Your task to perform on an android device: Search for vegetarian restaurants on Maps Image 0: 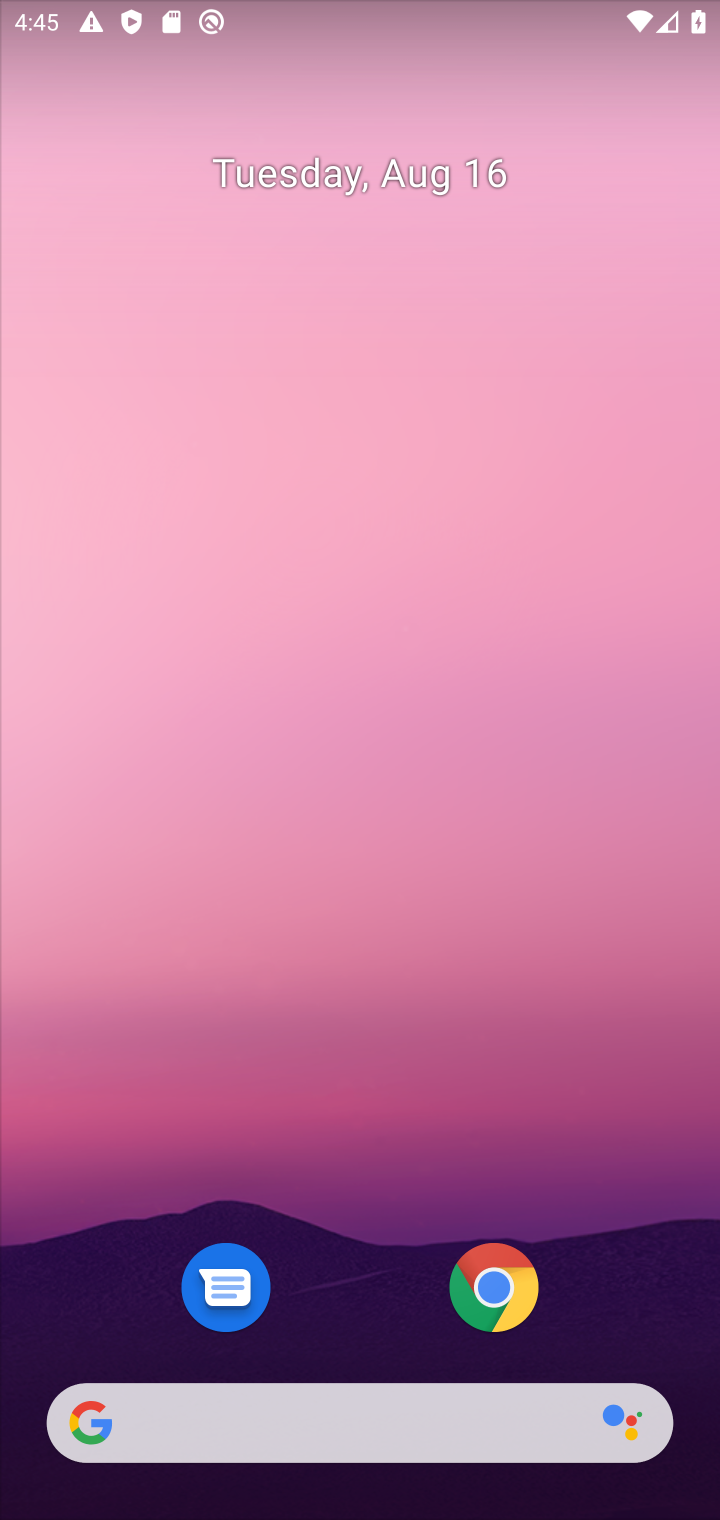
Step 0: drag from (318, 1259) to (275, 171)
Your task to perform on an android device: Search for vegetarian restaurants on Maps Image 1: 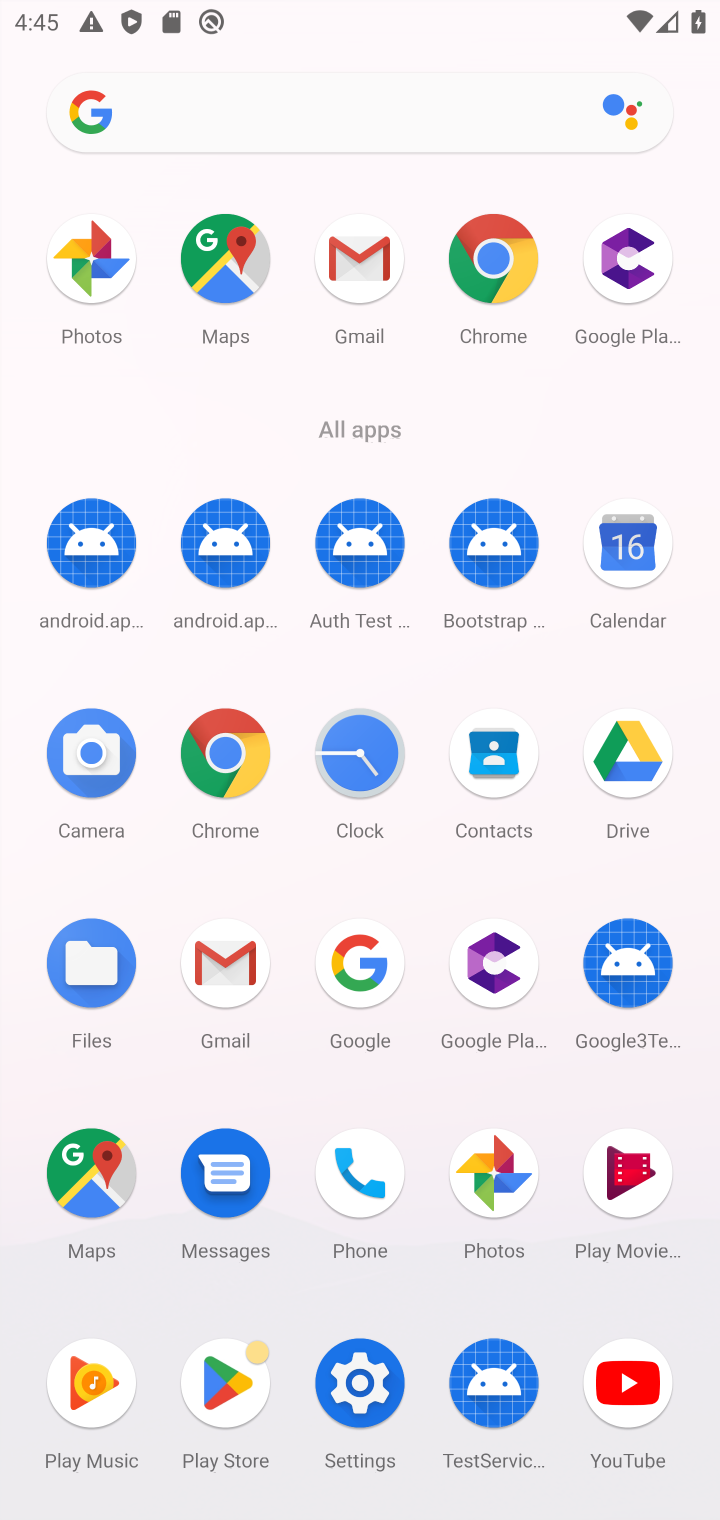
Step 1: click (88, 1171)
Your task to perform on an android device: Search for vegetarian restaurants on Maps Image 2: 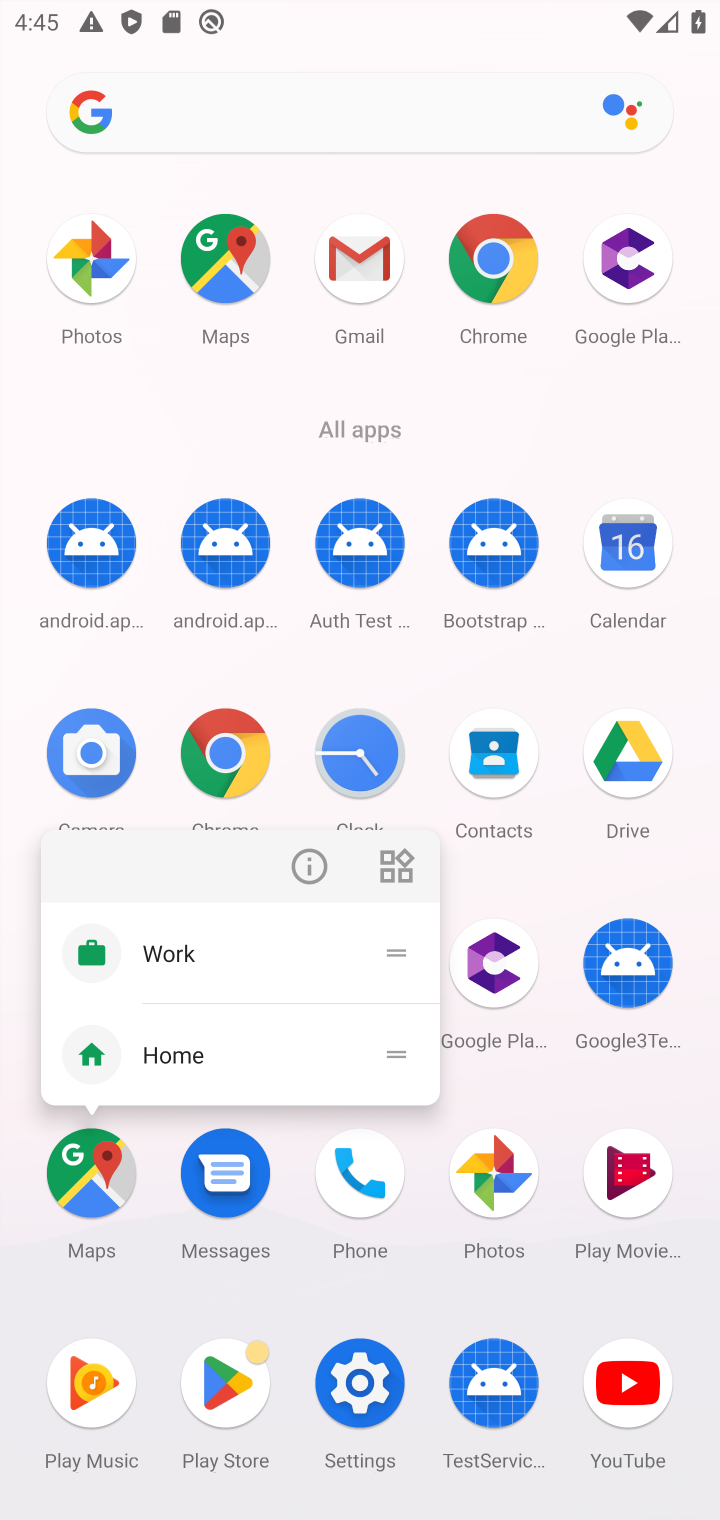
Step 2: click (91, 1164)
Your task to perform on an android device: Search for vegetarian restaurants on Maps Image 3: 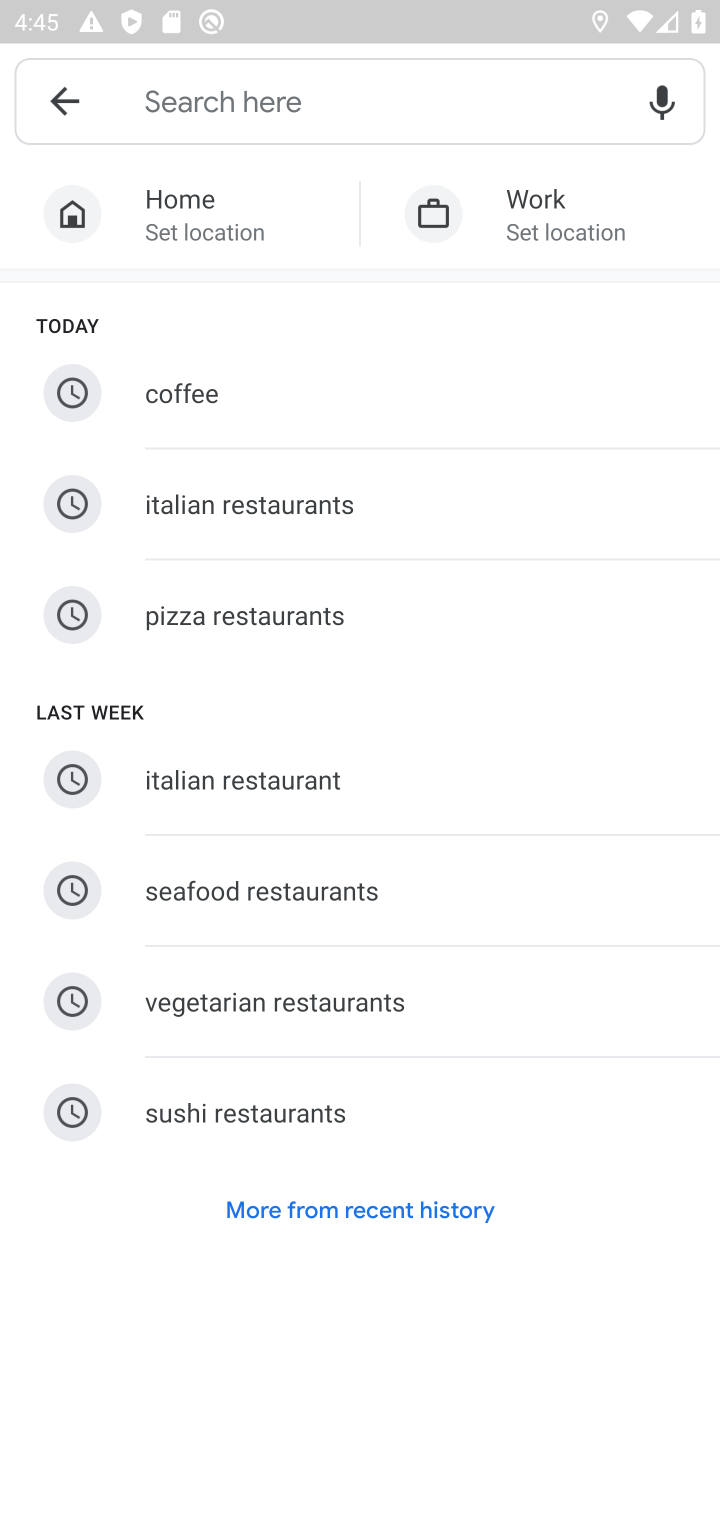
Step 3: click (350, 105)
Your task to perform on an android device: Search for vegetarian restaurants on Maps Image 4: 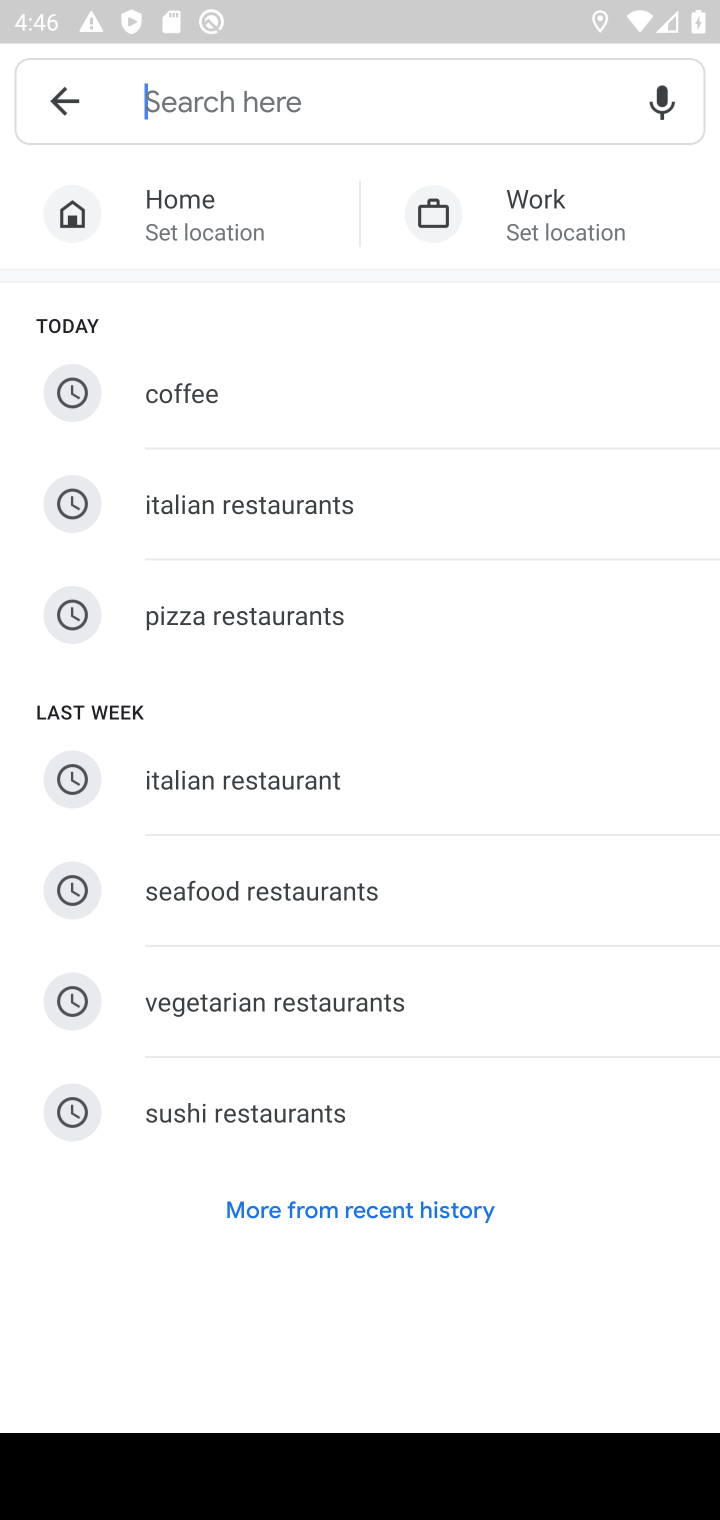
Step 4: type "r vegetarian restaurant"
Your task to perform on an android device: Search for vegetarian restaurants on Maps Image 5: 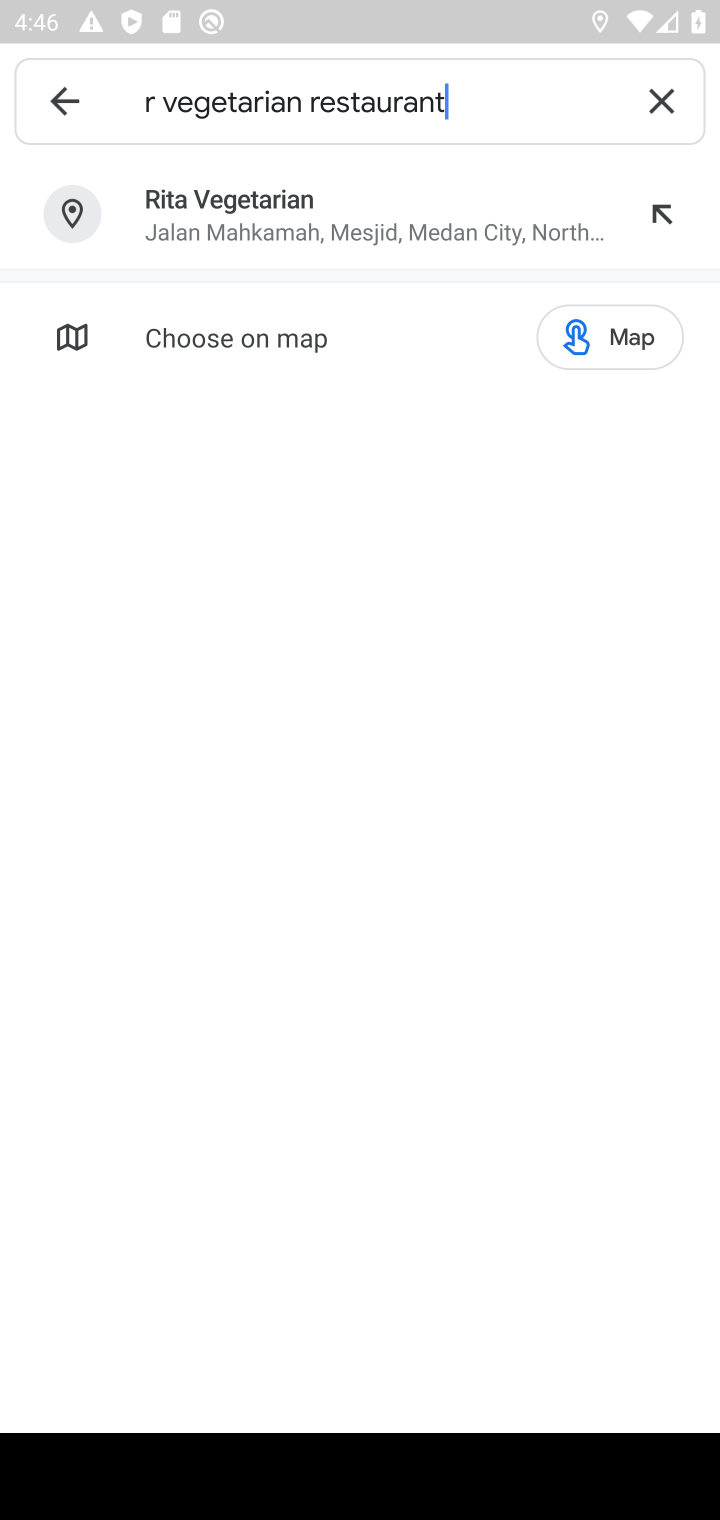
Step 5: type ""
Your task to perform on an android device: Search for vegetarian restaurants on Maps Image 6: 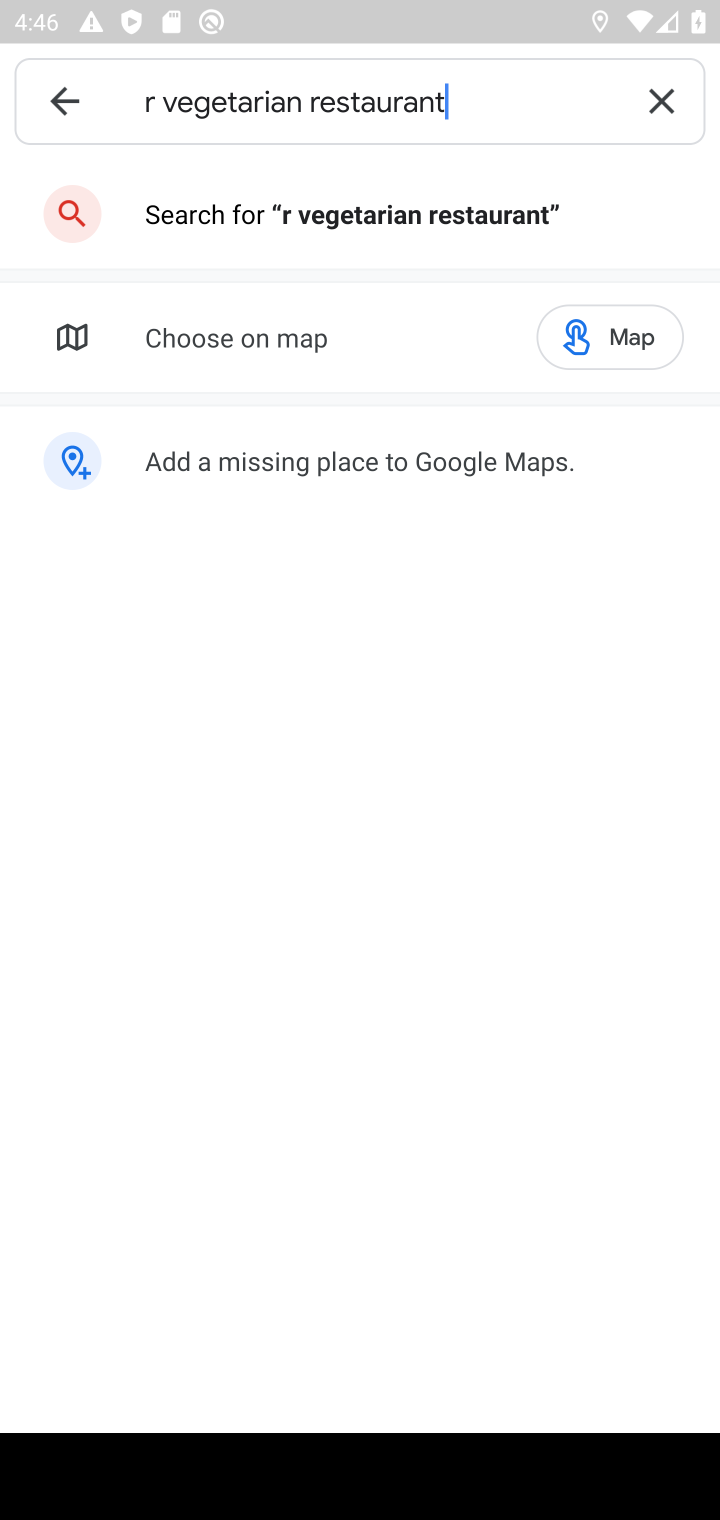
Step 6: click (426, 227)
Your task to perform on an android device: Search for vegetarian restaurants on Maps Image 7: 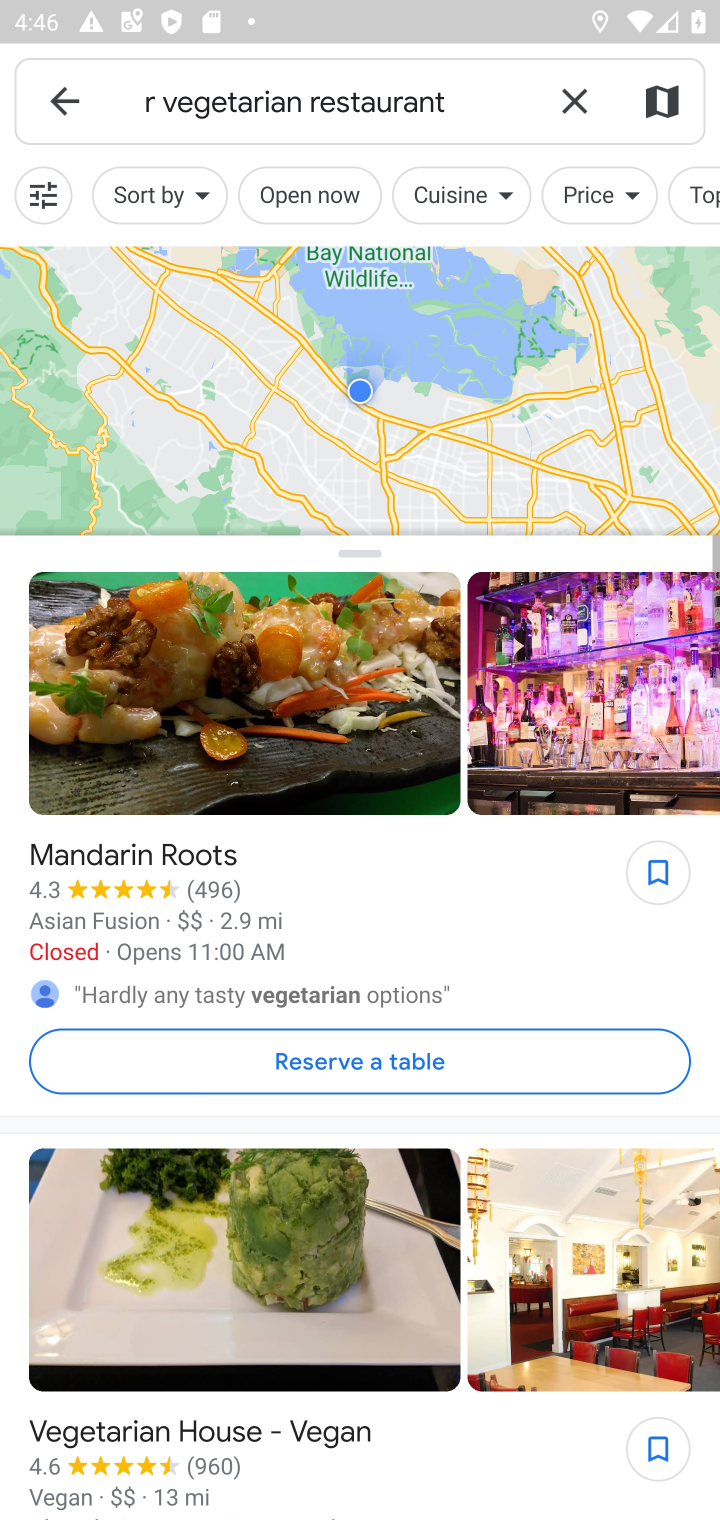
Step 7: task complete